Your task to perform on an android device: Open settings on Google Maps Image 0: 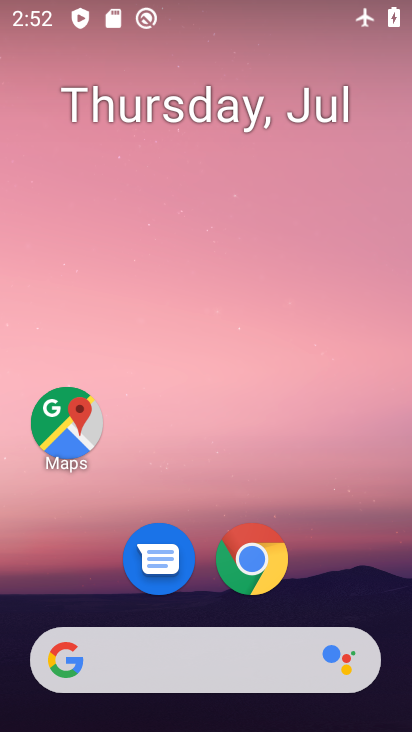
Step 0: drag from (220, 682) to (179, 201)
Your task to perform on an android device: Open settings on Google Maps Image 1: 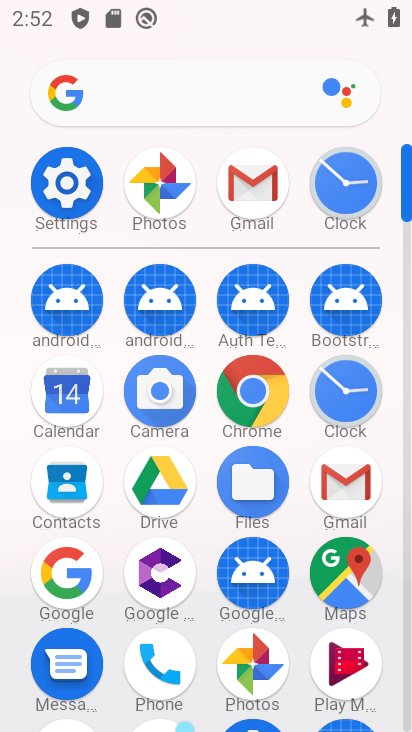
Step 1: click (341, 575)
Your task to perform on an android device: Open settings on Google Maps Image 2: 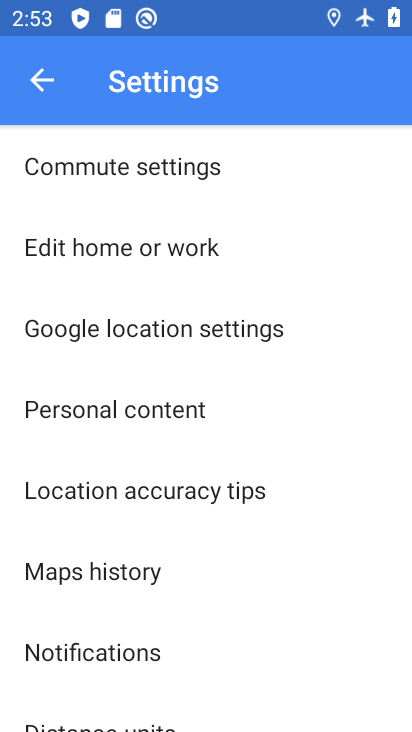
Step 2: press home button
Your task to perform on an android device: Open settings on Google Maps Image 3: 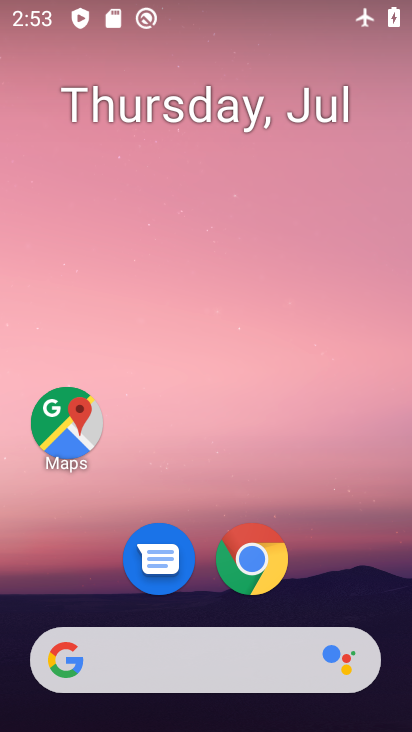
Step 3: drag from (212, 589) to (207, 137)
Your task to perform on an android device: Open settings on Google Maps Image 4: 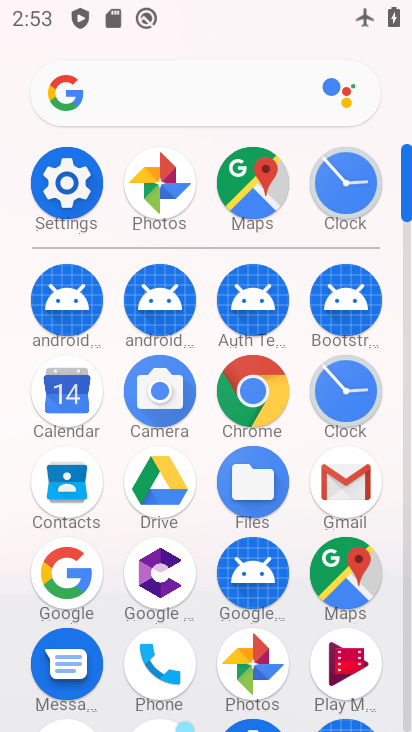
Step 4: click (357, 574)
Your task to perform on an android device: Open settings on Google Maps Image 5: 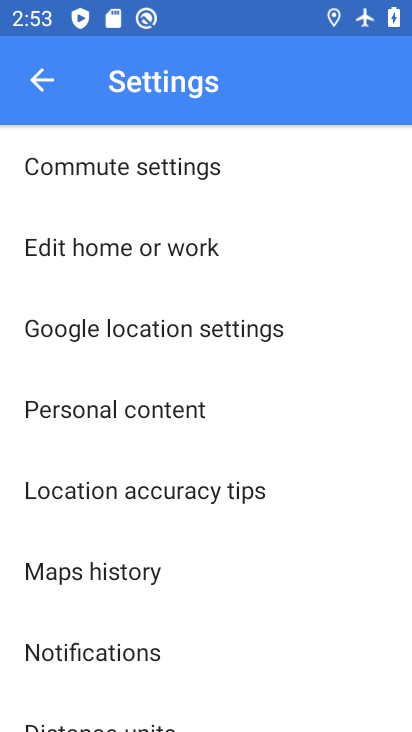
Step 5: click (34, 94)
Your task to perform on an android device: Open settings on Google Maps Image 6: 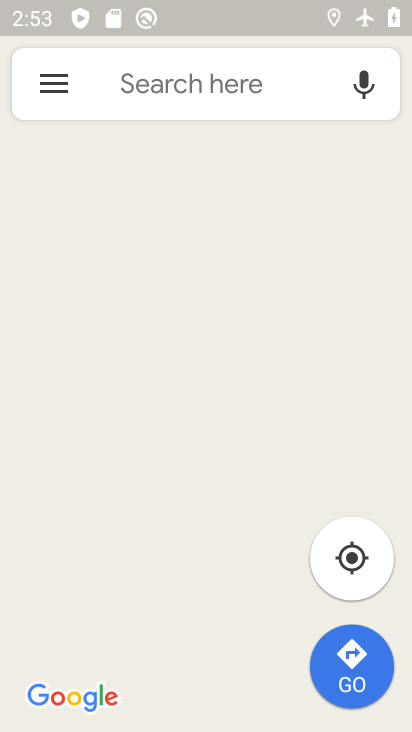
Step 6: task complete